Your task to perform on an android device: Add razer naga to the cart on target.com, then select checkout. Image 0: 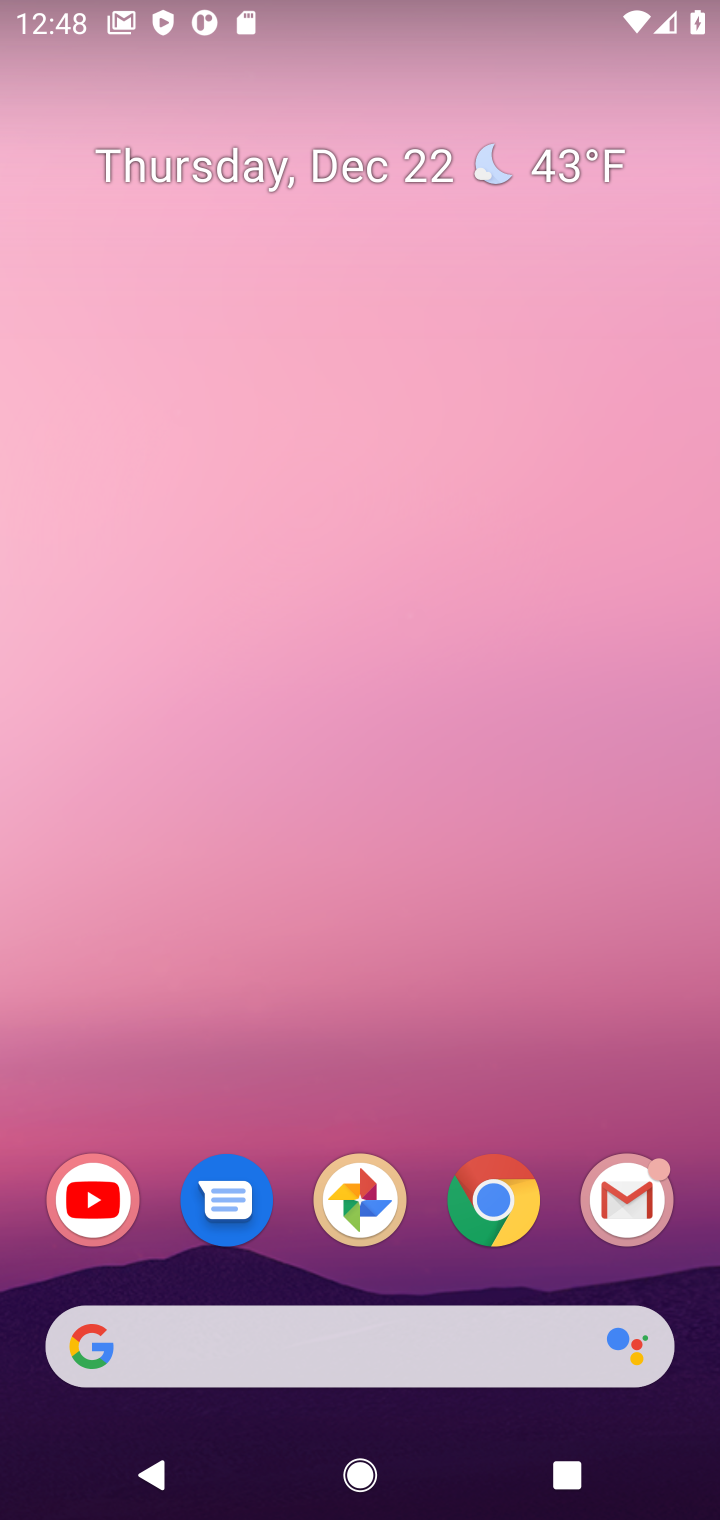
Step 0: click (477, 1217)
Your task to perform on an android device: Add razer naga to the cart on target.com, then select checkout. Image 1: 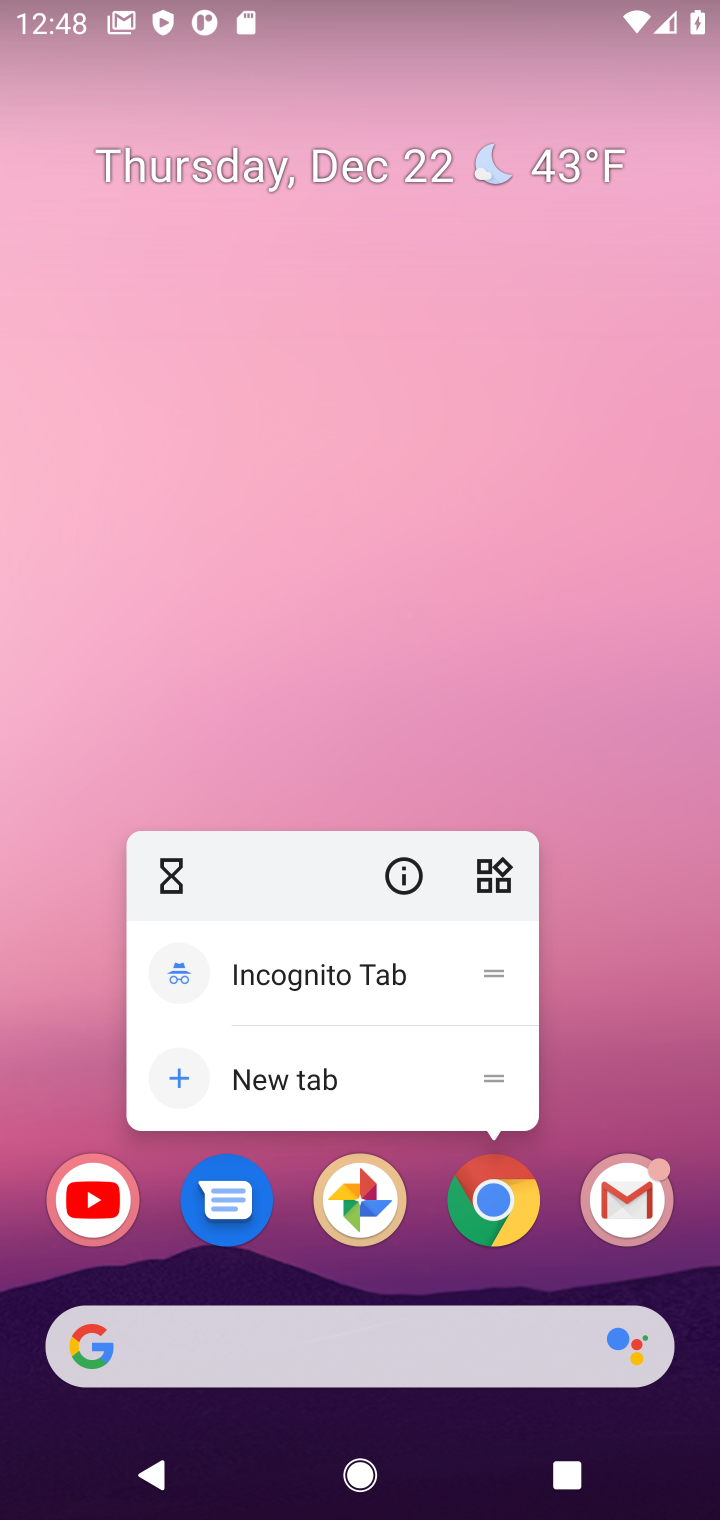
Step 1: click (477, 1217)
Your task to perform on an android device: Add razer naga to the cart on target.com, then select checkout. Image 2: 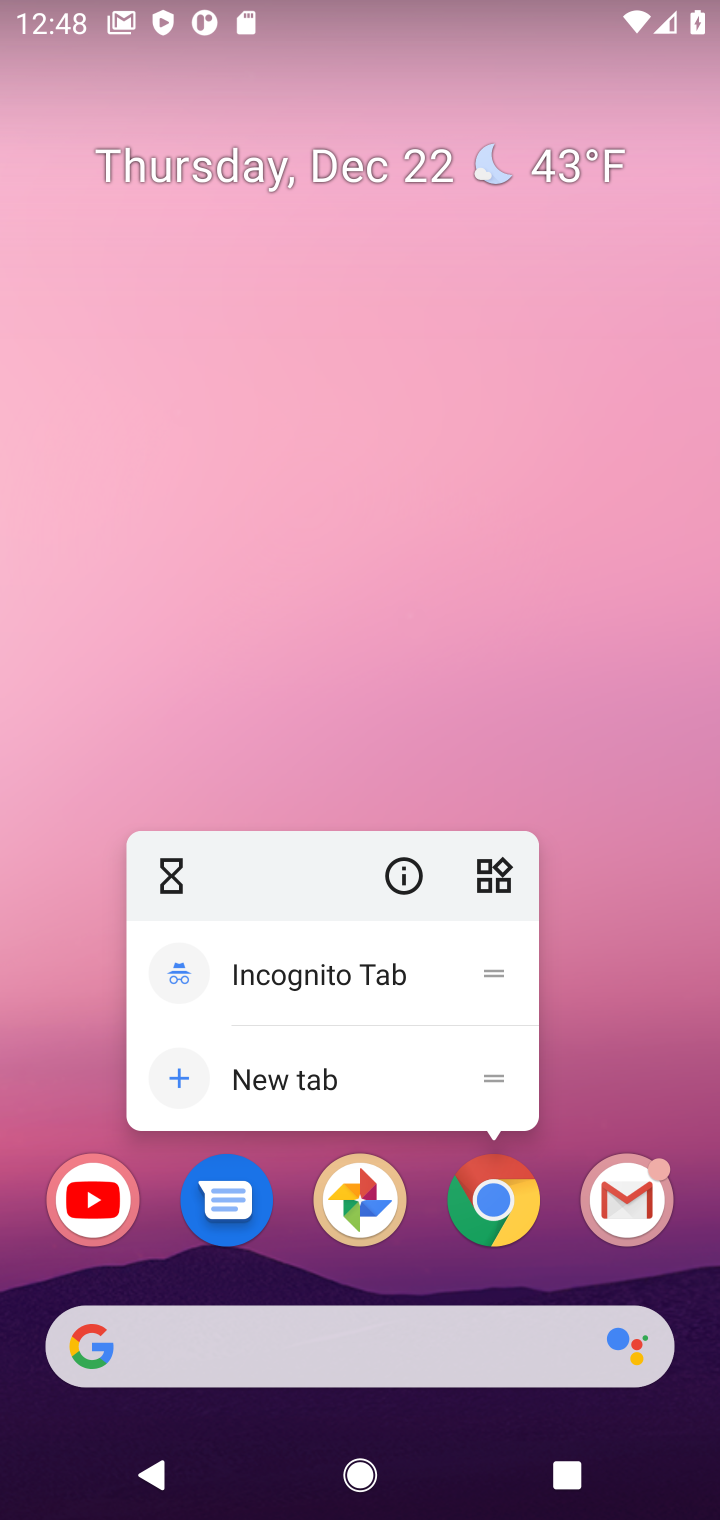
Step 2: click (475, 1217)
Your task to perform on an android device: Add razer naga to the cart on target.com, then select checkout. Image 3: 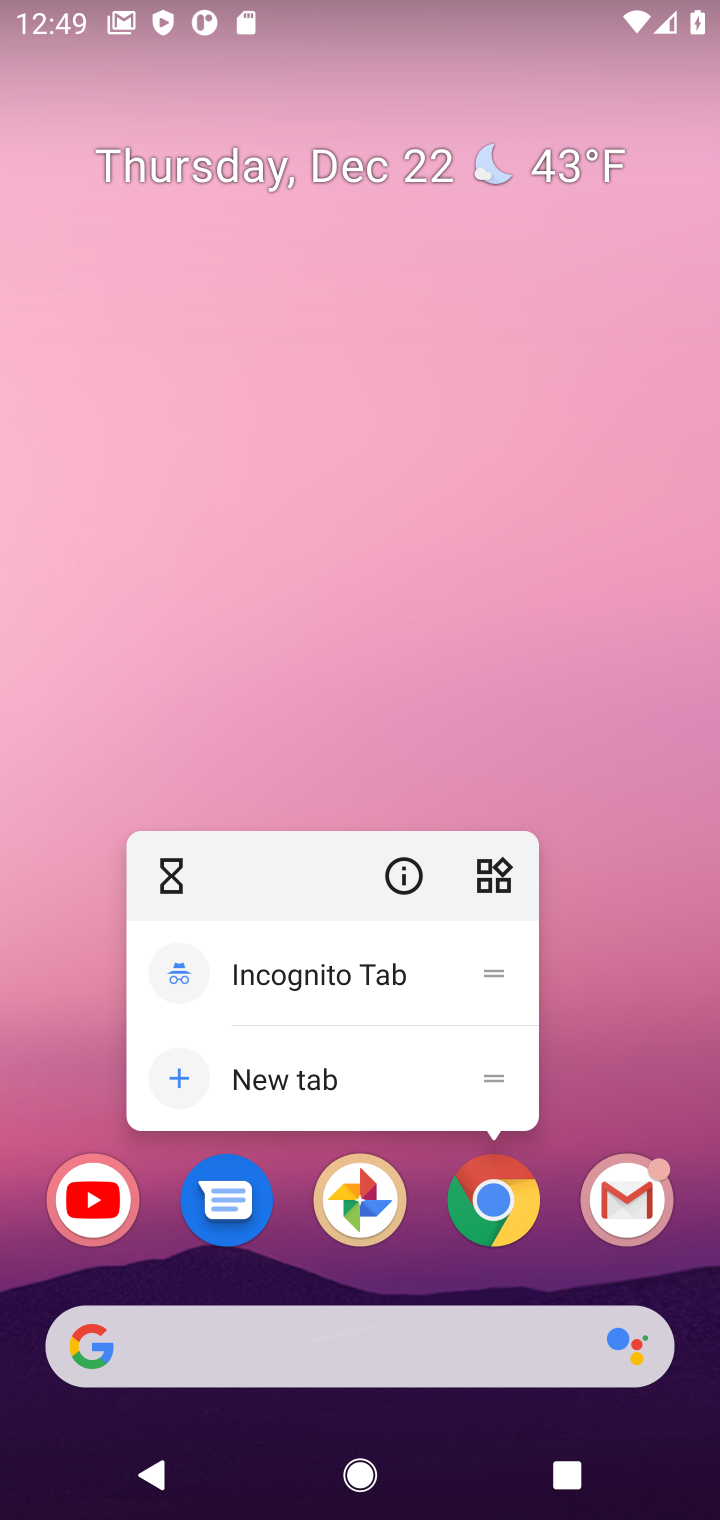
Step 3: click (502, 1213)
Your task to perform on an android device: Add razer naga to the cart on target.com, then select checkout. Image 4: 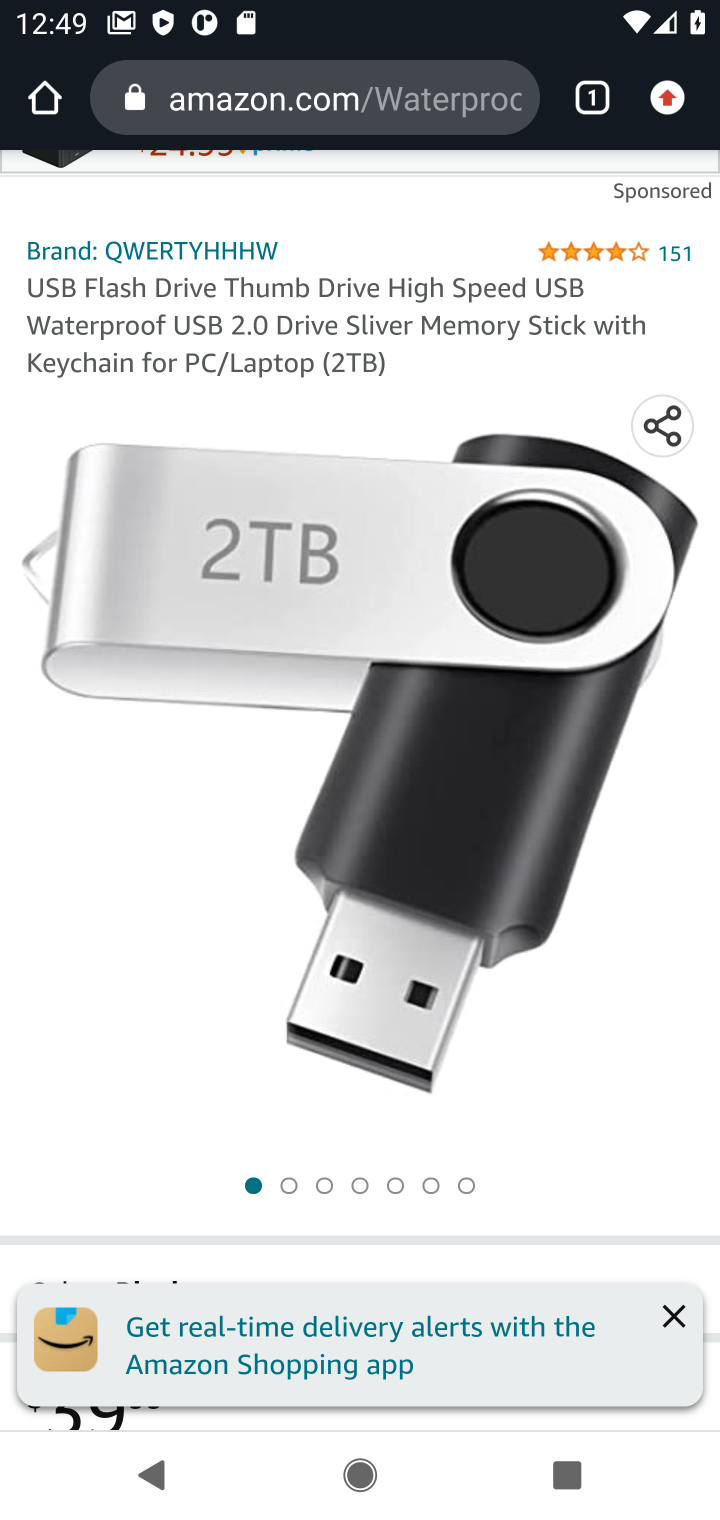
Step 4: click (312, 100)
Your task to perform on an android device: Add razer naga to the cart on target.com, then select checkout. Image 5: 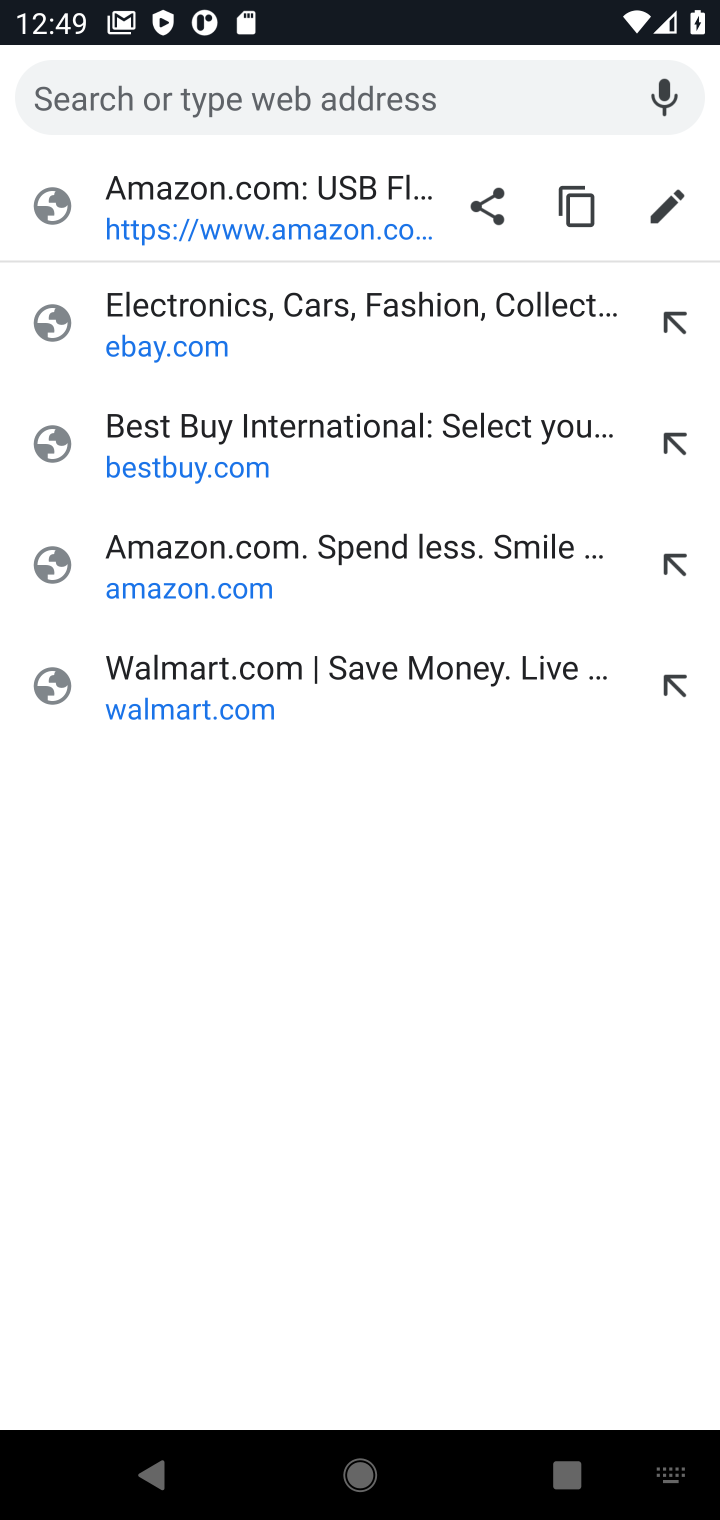
Step 5: type "target.com"
Your task to perform on an android device: Add razer naga to the cart on target.com, then select checkout. Image 6: 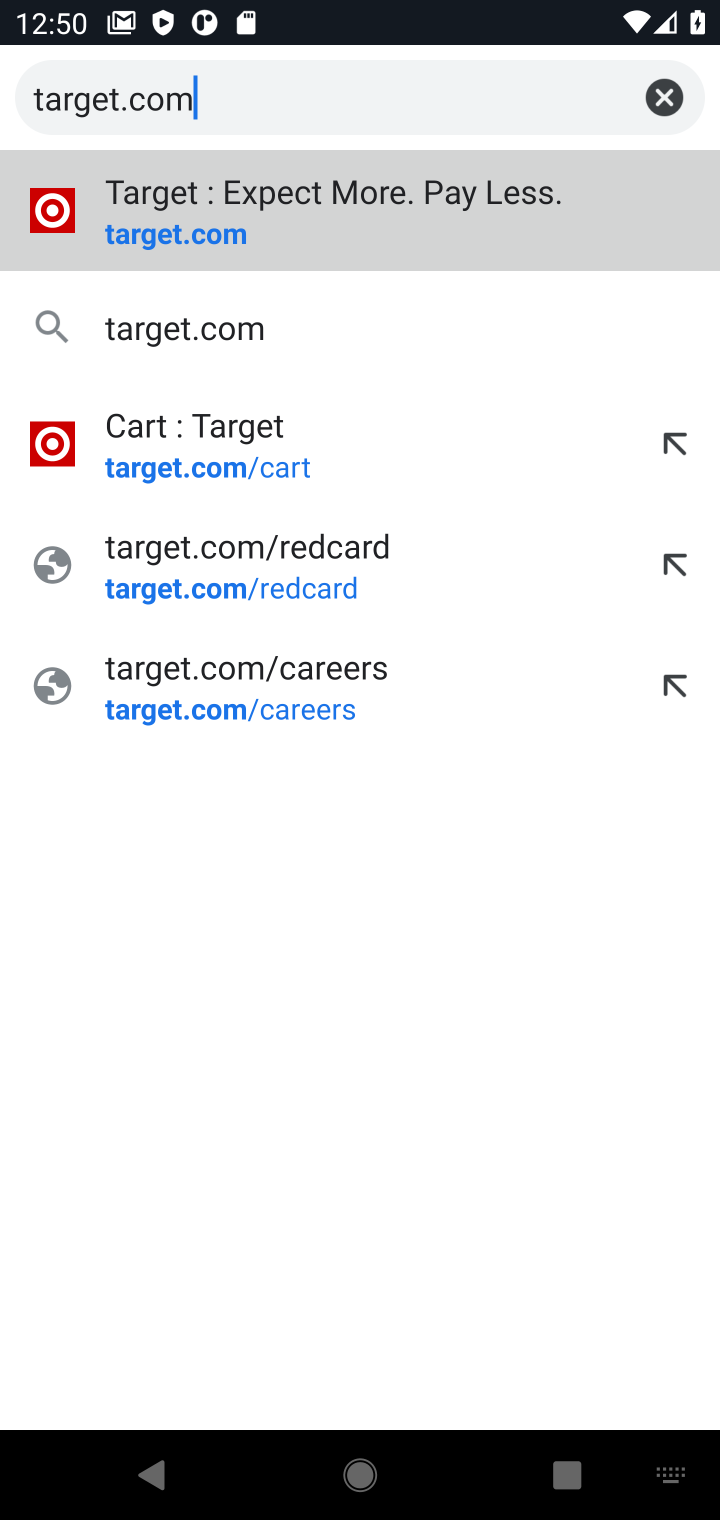
Step 6: click (175, 227)
Your task to perform on an android device: Add razer naga to the cart on target.com, then select checkout. Image 7: 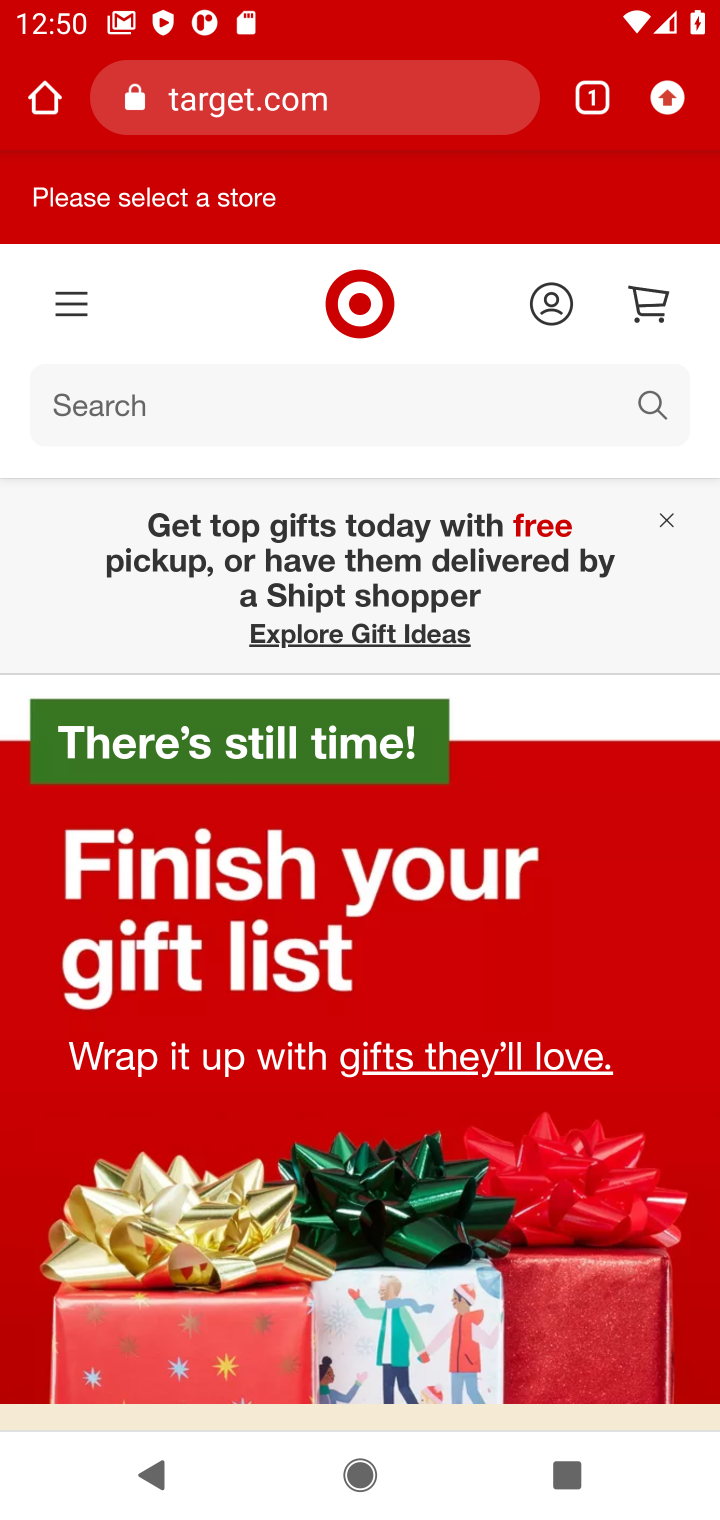
Step 7: click (104, 404)
Your task to perform on an android device: Add razer naga to the cart on target.com, then select checkout. Image 8: 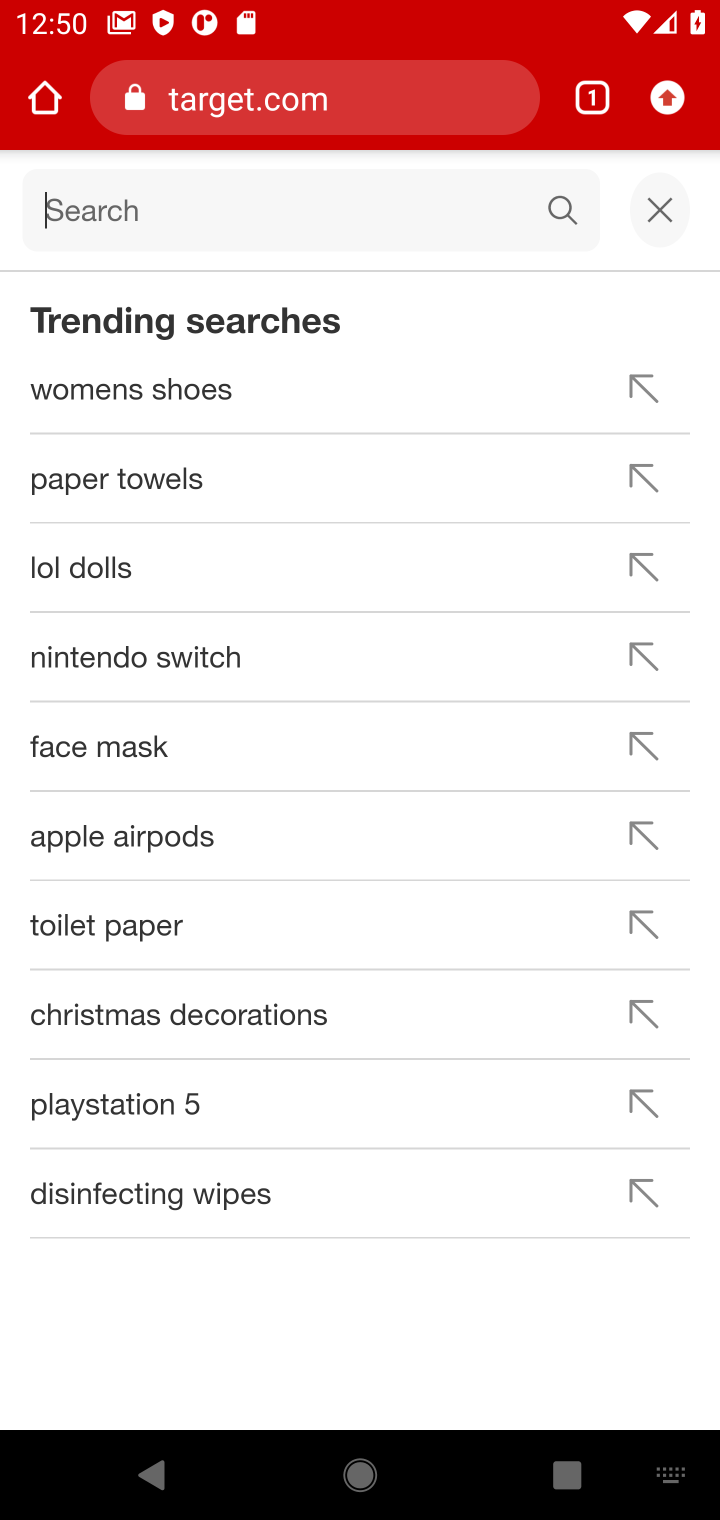
Step 8: type "razer naga"
Your task to perform on an android device: Add razer naga to the cart on target.com, then select checkout. Image 9: 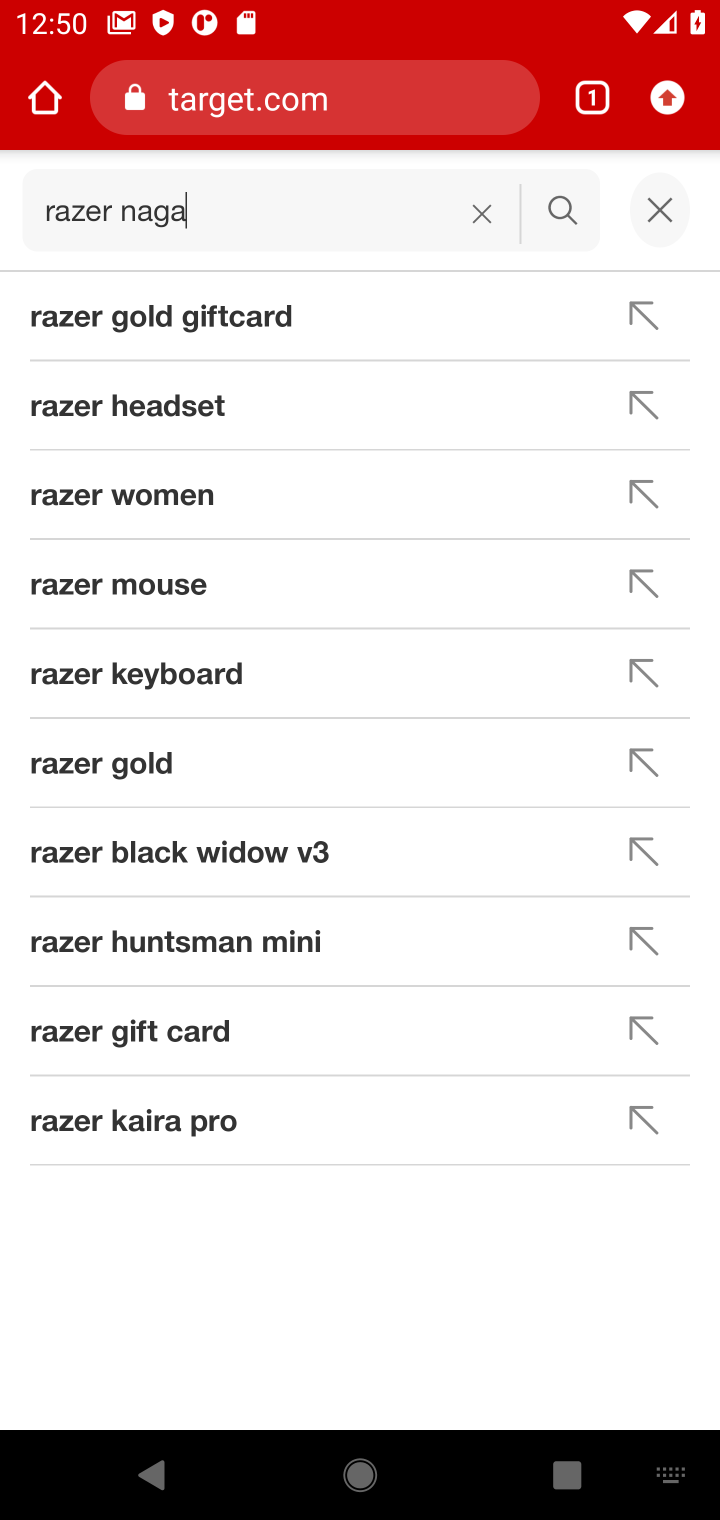
Step 9: click (576, 205)
Your task to perform on an android device: Add razer naga to the cart on target.com, then select checkout. Image 10: 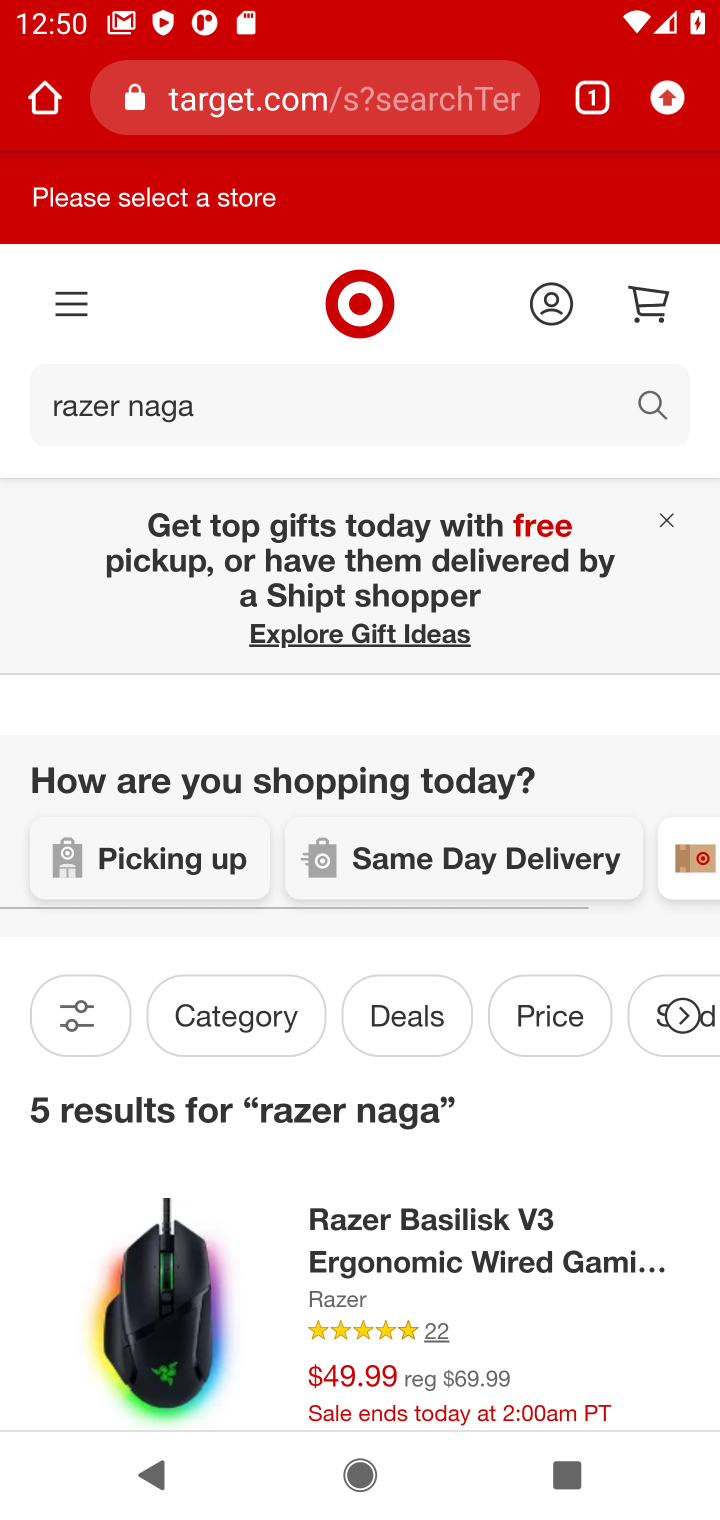
Step 10: task complete